Your task to perform on an android device: Open the Play Movies app and select the watchlist tab. Image 0: 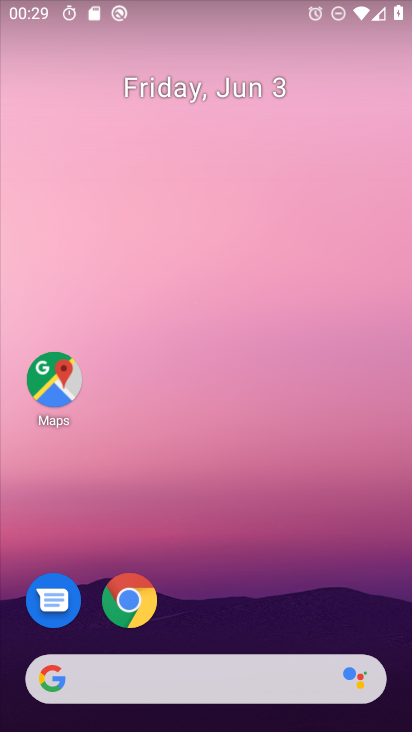
Step 0: drag from (219, 597) to (220, 95)
Your task to perform on an android device: Open the Play Movies app and select the watchlist tab. Image 1: 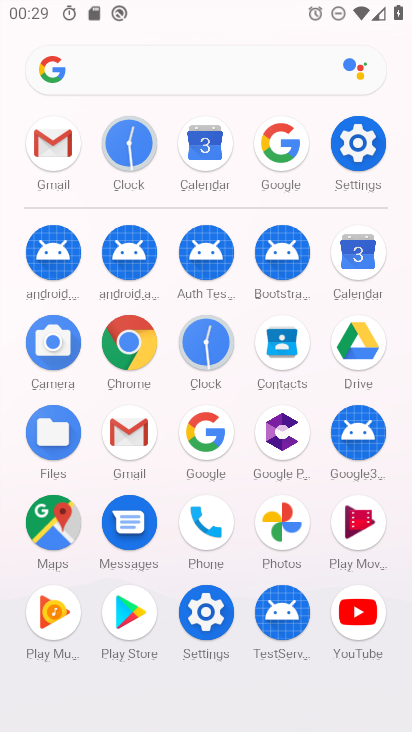
Step 1: click (362, 525)
Your task to perform on an android device: Open the Play Movies app and select the watchlist tab. Image 2: 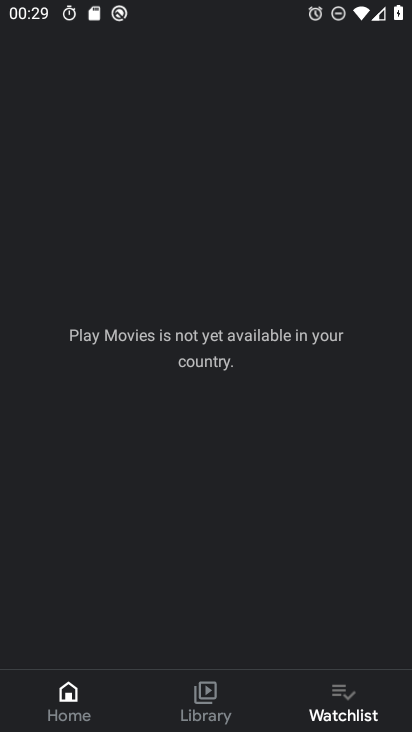
Step 2: click (351, 692)
Your task to perform on an android device: Open the Play Movies app and select the watchlist tab. Image 3: 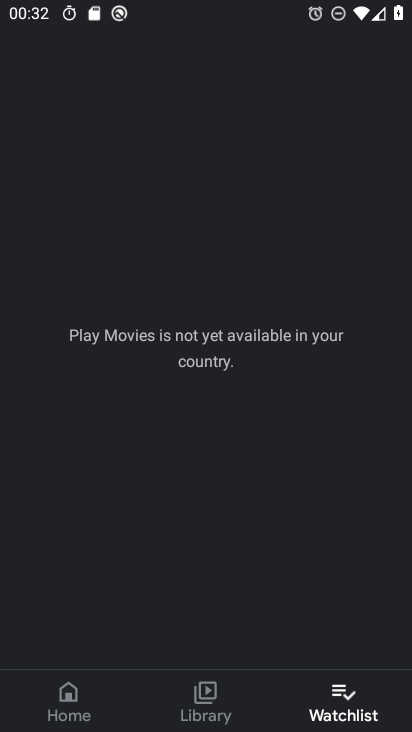
Step 3: task complete